Your task to perform on an android device: Open Chrome and go to settings Image 0: 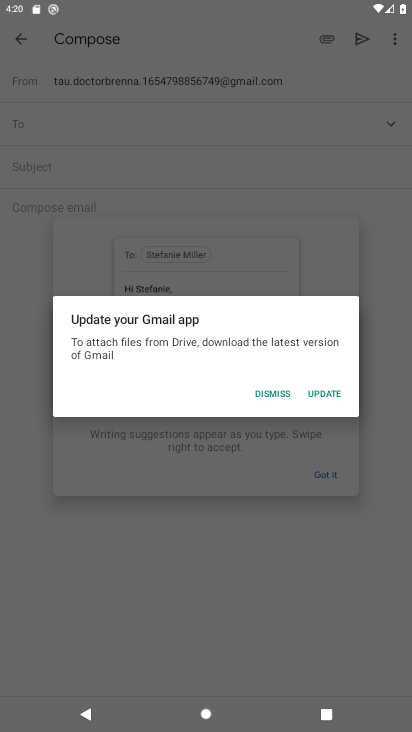
Step 0: press home button
Your task to perform on an android device: Open Chrome and go to settings Image 1: 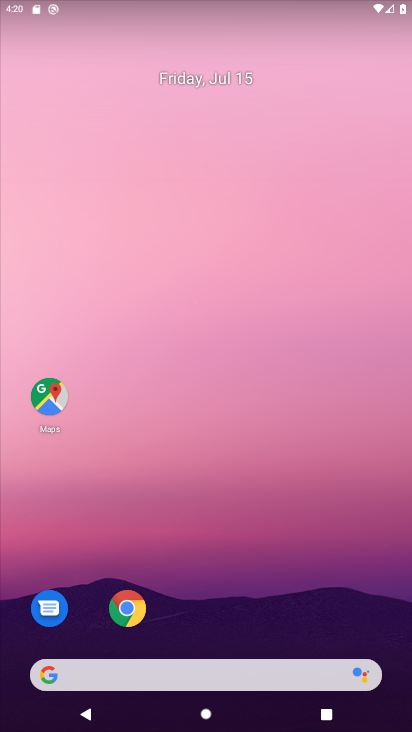
Step 1: click (129, 616)
Your task to perform on an android device: Open Chrome and go to settings Image 2: 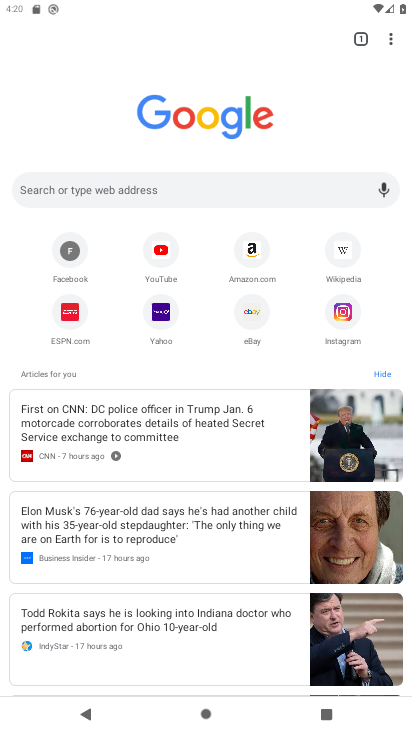
Step 2: click (388, 38)
Your task to perform on an android device: Open Chrome and go to settings Image 3: 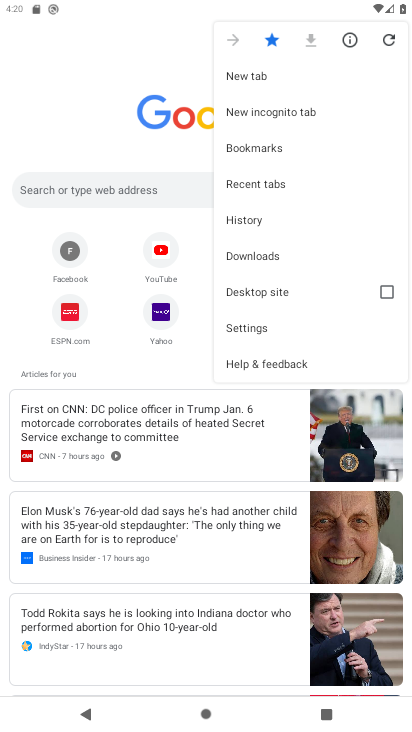
Step 3: click (260, 325)
Your task to perform on an android device: Open Chrome and go to settings Image 4: 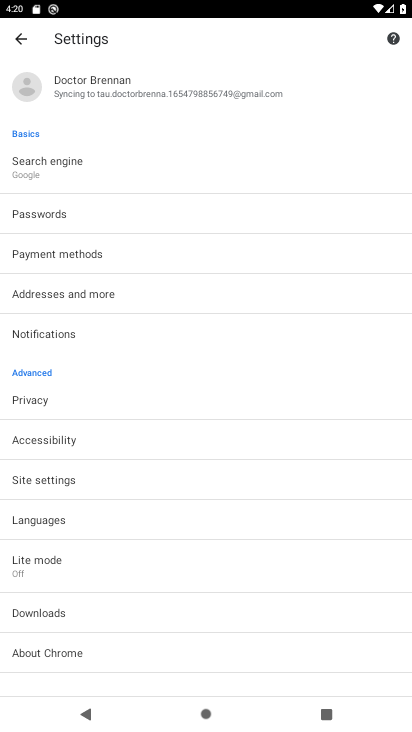
Step 4: task complete